Your task to perform on an android device: find which apps use the phone's location Image 0: 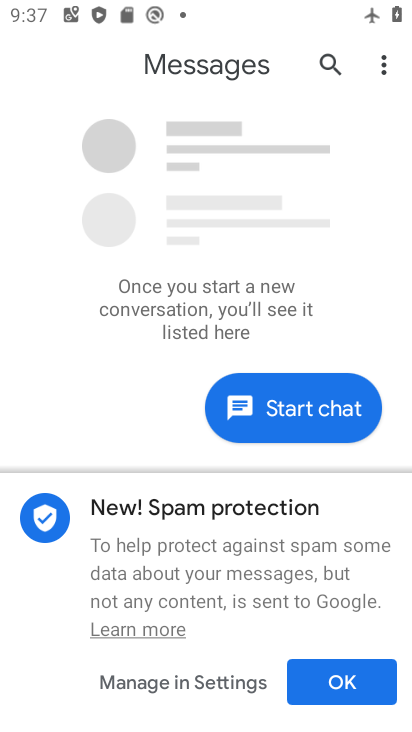
Step 0: press home button
Your task to perform on an android device: find which apps use the phone's location Image 1: 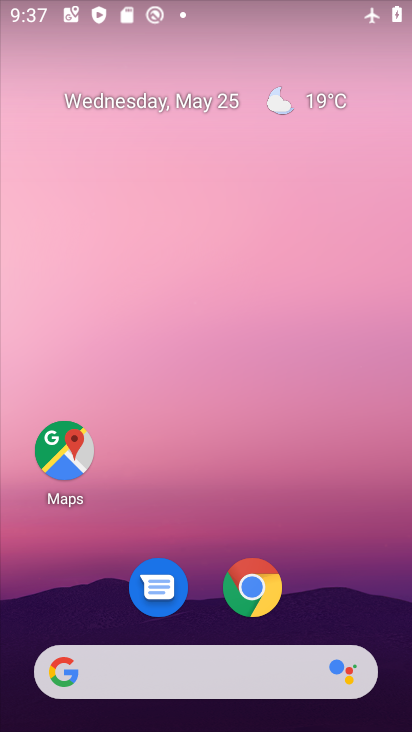
Step 1: drag from (379, 613) to (308, 75)
Your task to perform on an android device: find which apps use the phone's location Image 2: 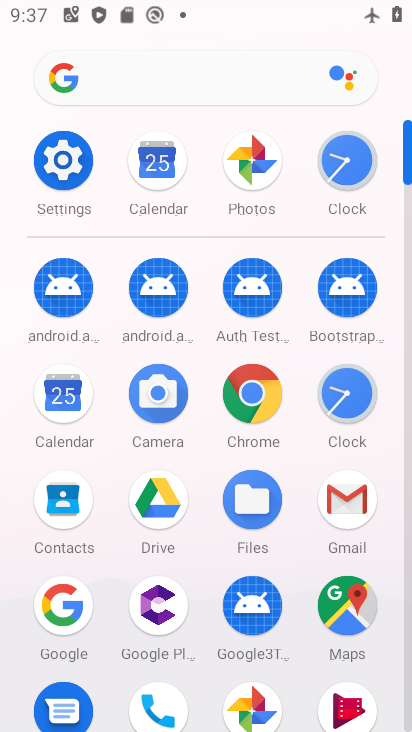
Step 2: click (409, 723)
Your task to perform on an android device: find which apps use the phone's location Image 3: 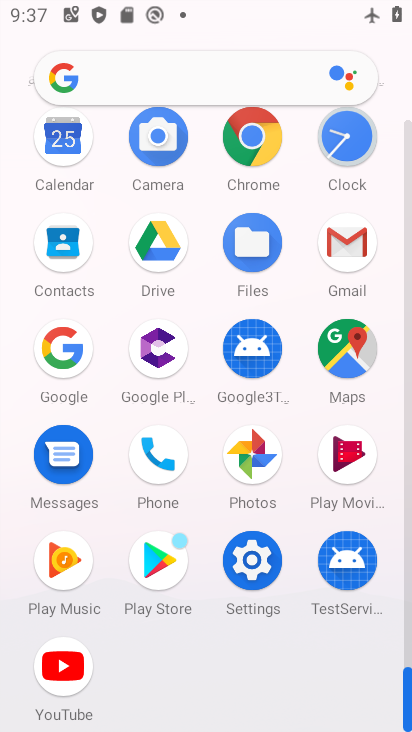
Step 3: click (253, 560)
Your task to perform on an android device: find which apps use the phone's location Image 4: 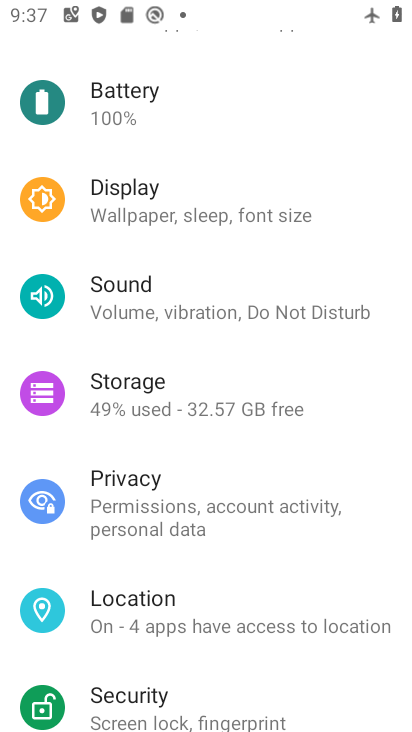
Step 4: click (150, 604)
Your task to perform on an android device: find which apps use the phone's location Image 5: 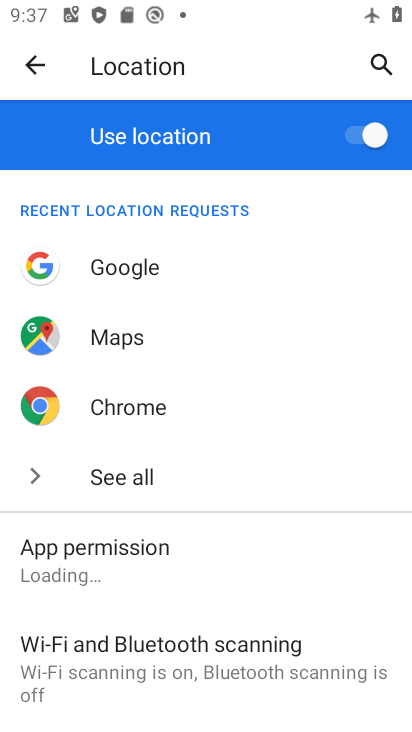
Step 5: drag from (299, 640) to (303, 423)
Your task to perform on an android device: find which apps use the phone's location Image 6: 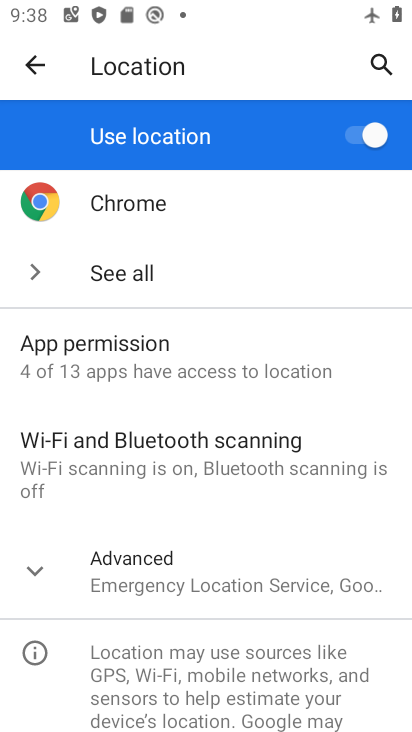
Step 6: click (103, 342)
Your task to perform on an android device: find which apps use the phone's location Image 7: 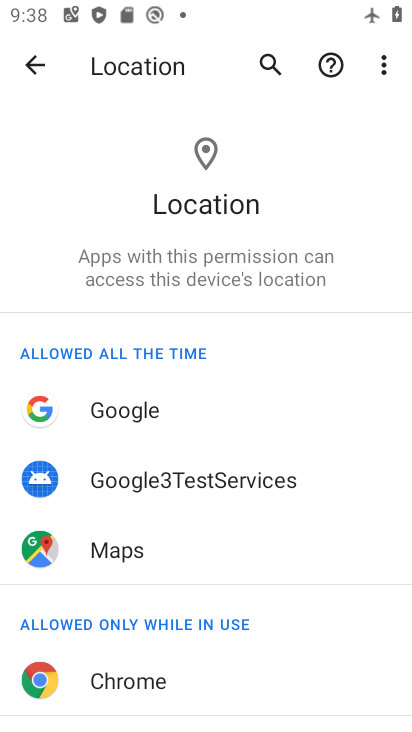
Step 7: drag from (300, 623) to (332, 183)
Your task to perform on an android device: find which apps use the phone's location Image 8: 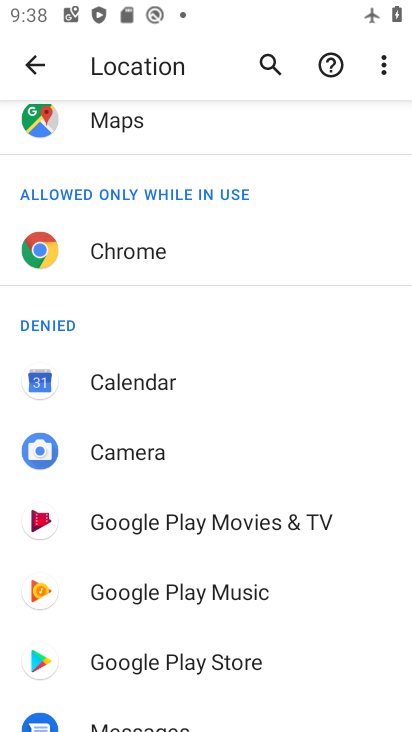
Step 8: drag from (314, 705) to (323, 128)
Your task to perform on an android device: find which apps use the phone's location Image 9: 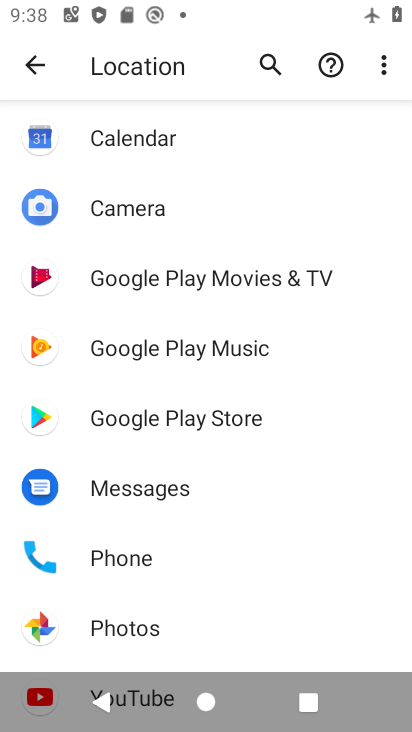
Step 9: click (108, 627)
Your task to perform on an android device: find which apps use the phone's location Image 10: 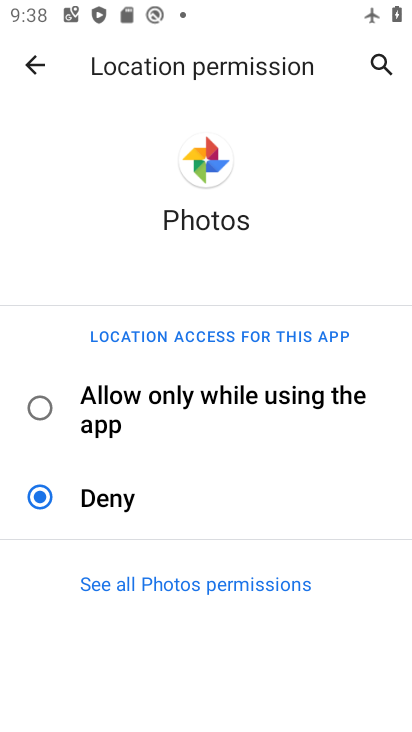
Step 10: task complete